Your task to perform on an android device: Go to sound settings Image 0: 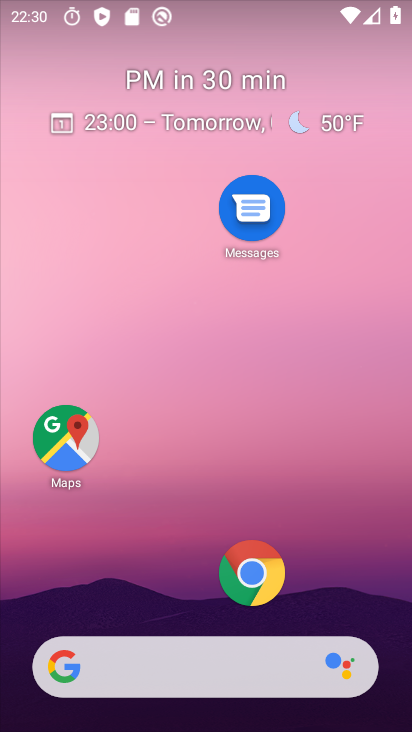
Step 0: drag from (176, 593) to (236, 40)
Your task to perform on an android device: Go to sound settings Image 1: 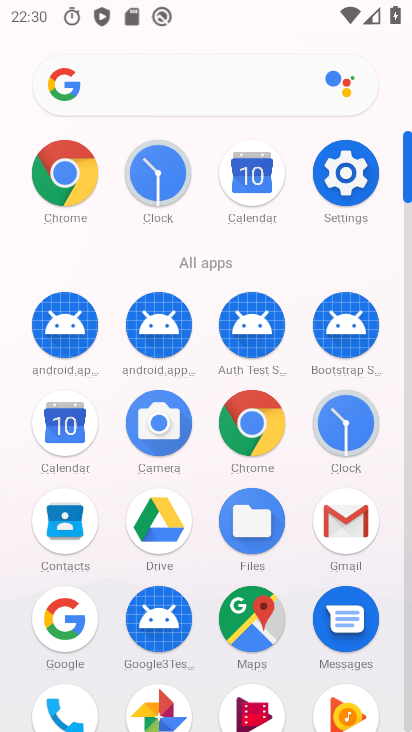
Step 1: click (351, 169)
Your task to perform on an android device: Go to sound settings Image 2: 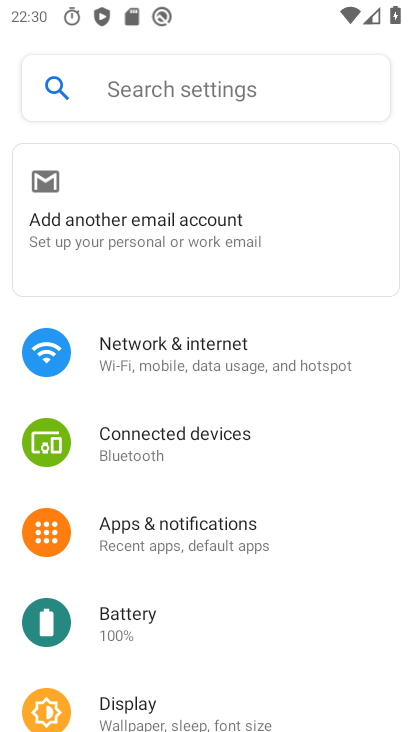
Step 2: drag from (230, 666) to (204, 202)
Your task to perform on an android device: Go to sound settings Image 3: 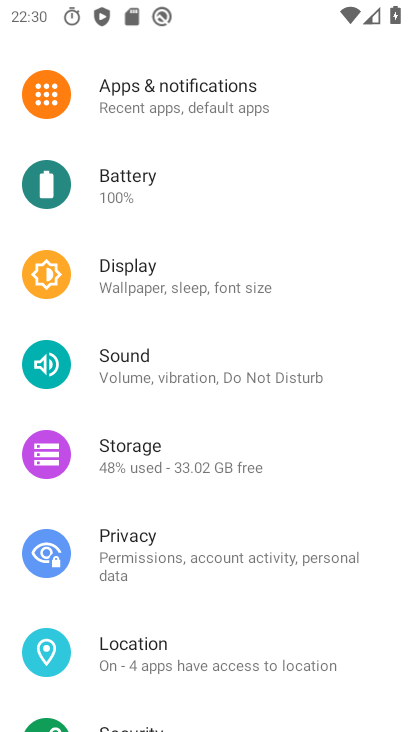
Step 3: click (159, 378)
Your task to perform on an android device: Go to sound settings Image 4: 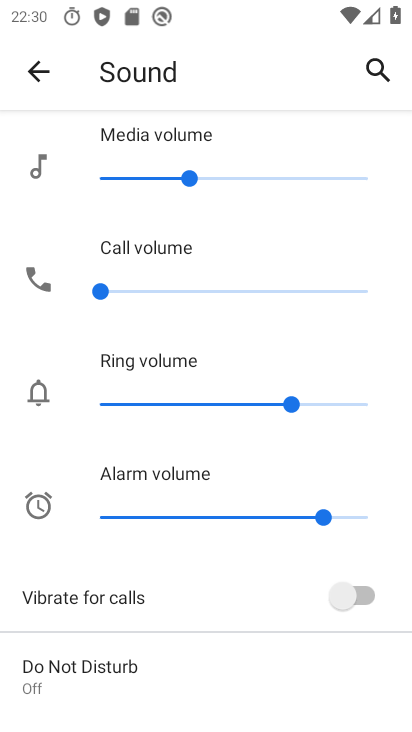
Step 4: task complete